Your task to perform on an android device: turn off smart reply in the gmail app Image 0: 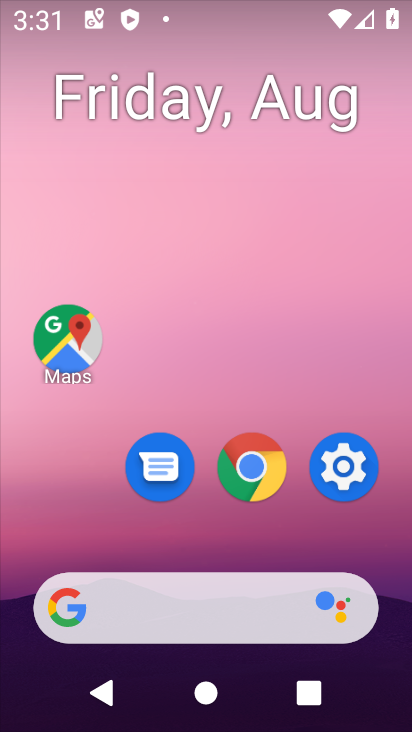
Step 0: drag from (242, 515) to (178, 59)
Your task to perform on an android device: turn off smart reply in the gmail app Image 1: 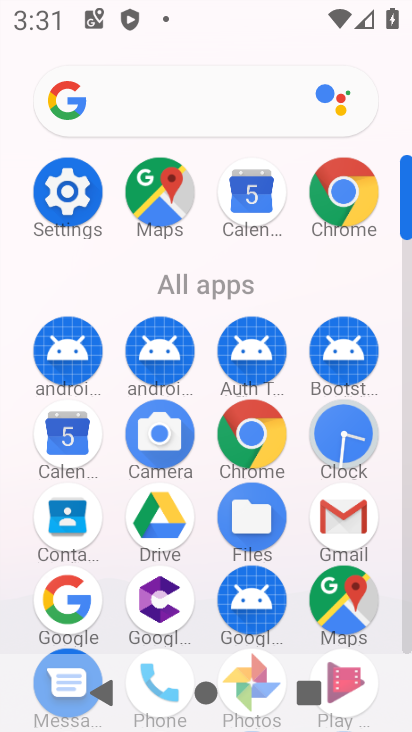
Step 1: drag from (290, 500) to (243, 25)
Your task to perform on an android device: turn off smart reply in the gmail app Image 2: 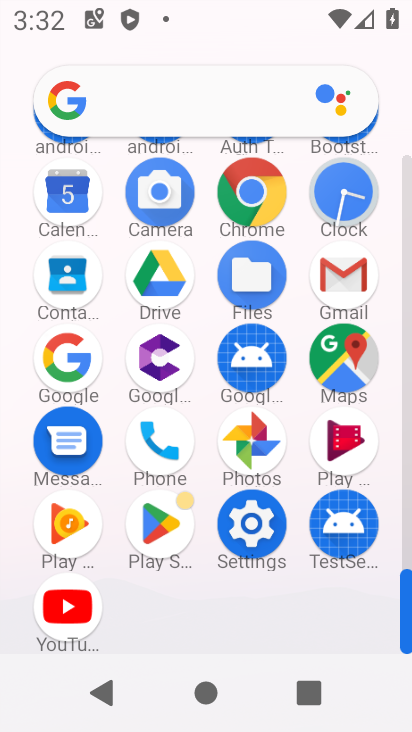
Step 2: click (338, 277)
Your task to perform on an android device: turn off smart reply in the gmail app Image 3: 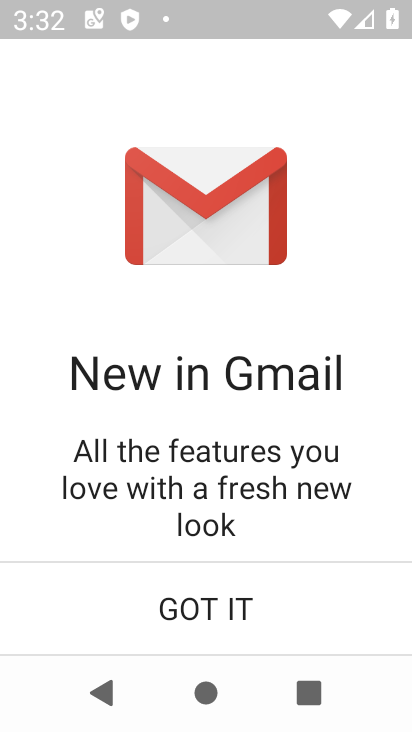
Step 3: click (230, 613)
Your task to perform on an android device: turn off smart reply in the gmail app Image 4: 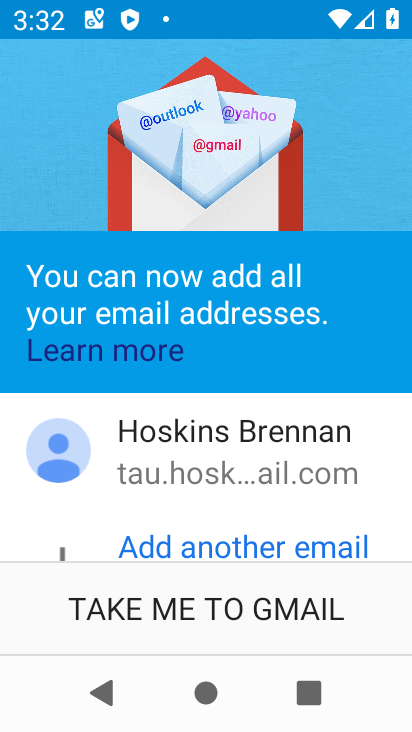
Step 4: click (277, 597)
Your task to perform on an android device: turn off smart reply in the gmail app Image 5: 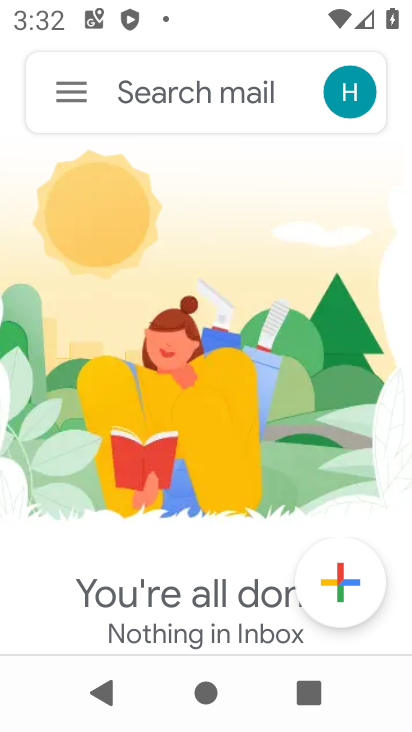
Step 5: click (64, 88)
Your task to perform on an android device: turn off smart reply in the gmail app Image 6: 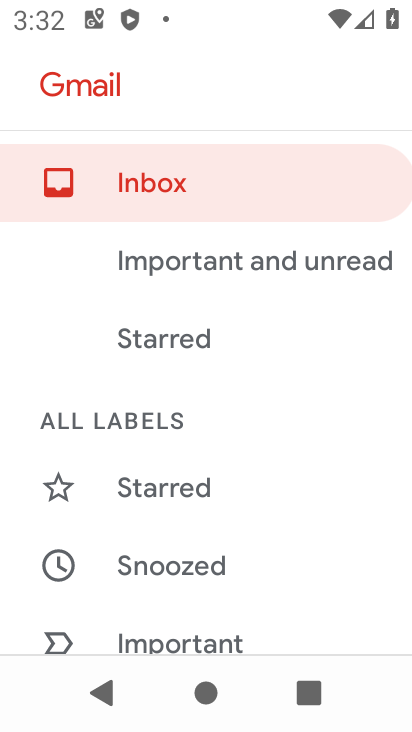
Step 6: drag from (226, 590) to (209, 139)
Your task to perform on an android device: turn off smart reply in the gmail app Image 7: 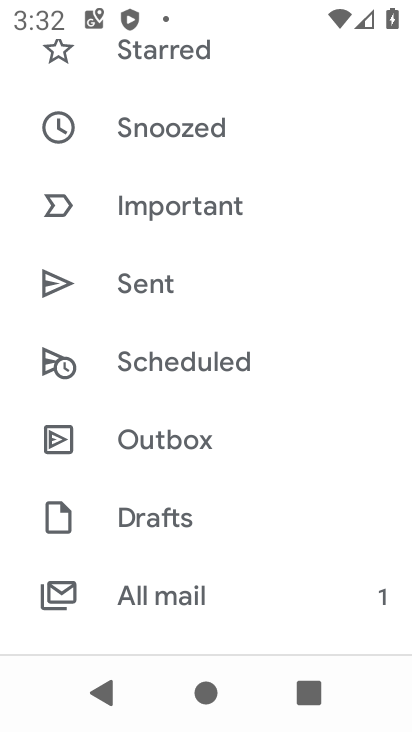
Step 7: drag from (276, 514) to (234, 2)
Your task to perform on an android device: turn off smart reply in the gmail app Image 8: 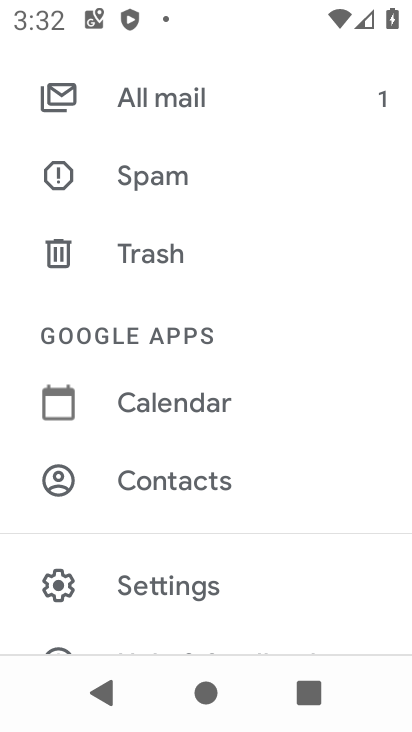
Step 8: click (179, 584)
Your task to perform on an android device: turn off smart reply in the gmail app Image 9: 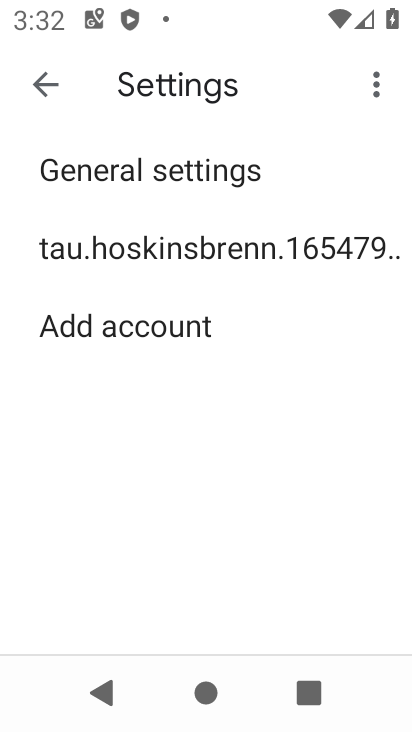
Step 9: click (261, 252)
Your task to perform on an android device: turn off smart reply in the gmail app Image 10: 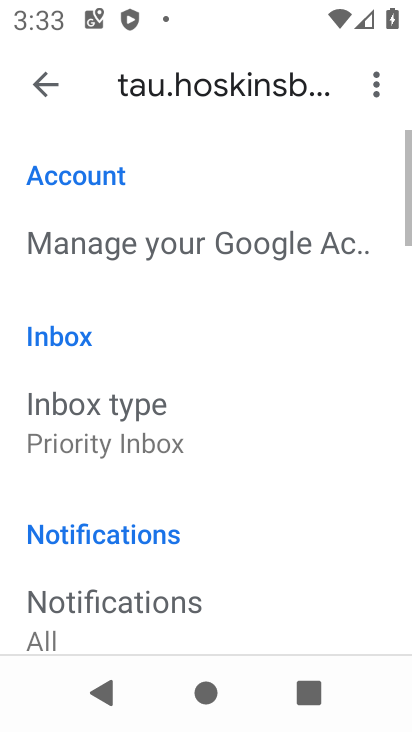
Step 10: drag from (275, 511) to (219, 132)
Your task to perform on an android device: turn off smart reply in the gmail app Image 11: 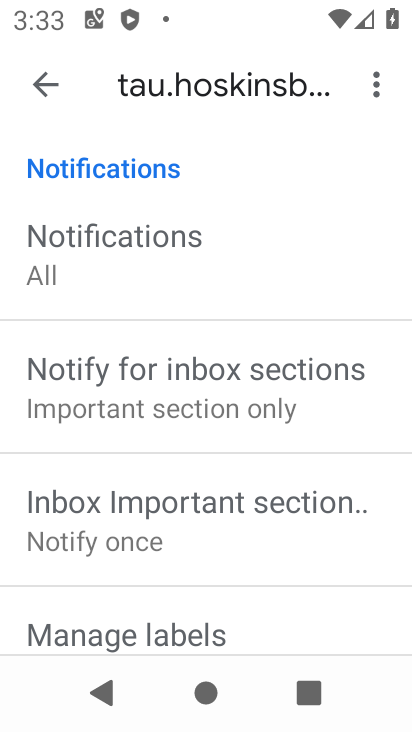
Step 11: drag from (321, 547) to (319, 146)
Your task to perform on an android device: turn off smart reply in the gmail app Image 12: 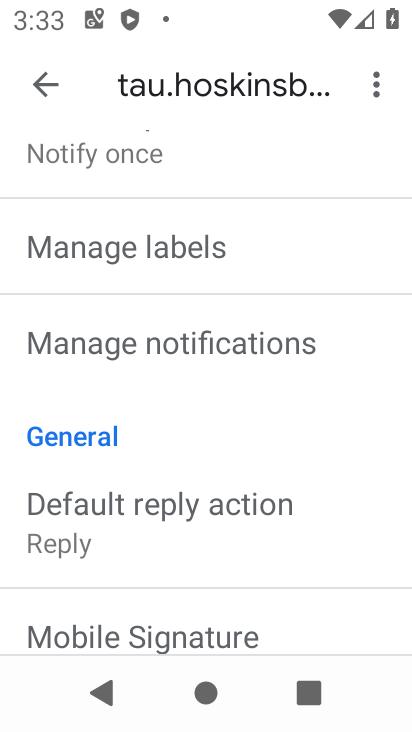
Step 12: drag from (298, 568) to (299, 192)
Your task to perform on an android device: turn off smart reply in the gmail app Image 13: 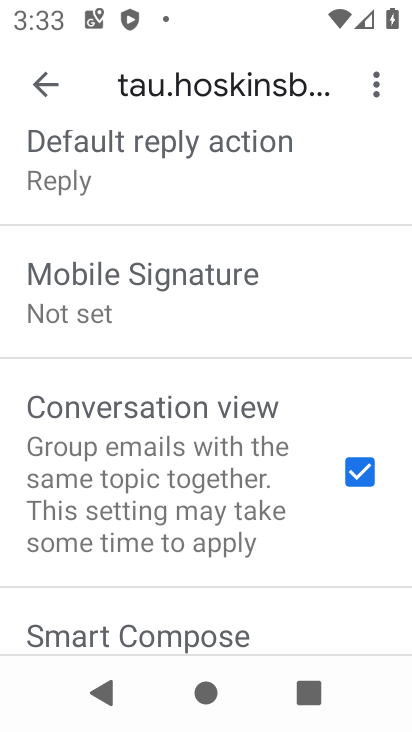
Step 13: drag from (340, 593) to (290, 178)
Your task to perform on an android device: turn off smart reply in the gmail app Image 14: 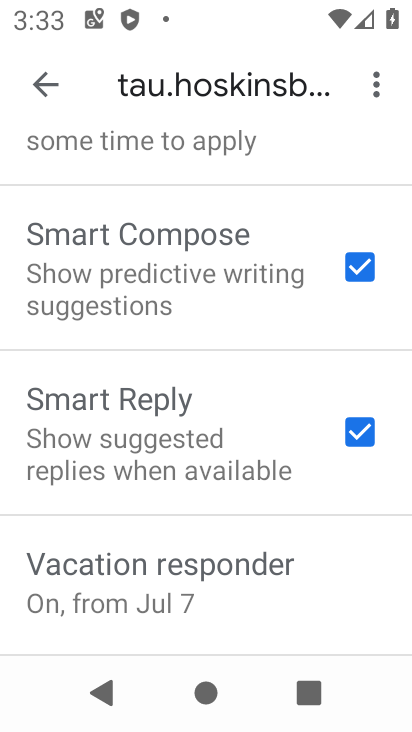
Step 14: click (307, 446)
Your task to perform on an android device: turn off smart reply in the gmail app Image 15: 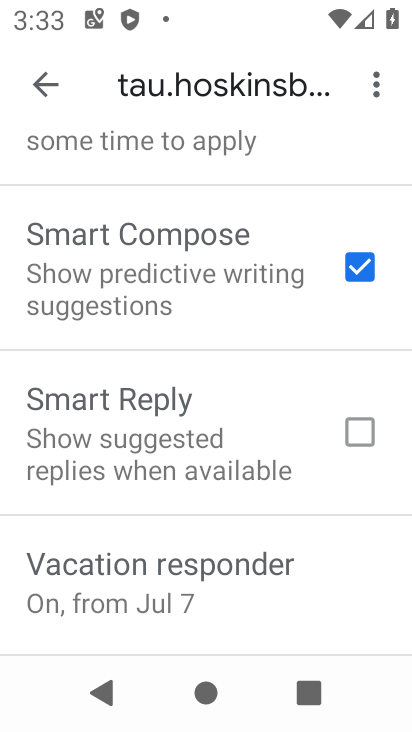
Step 15: task complete